Your task to perform on an android device: check the backup settings in the google photos Image 0: 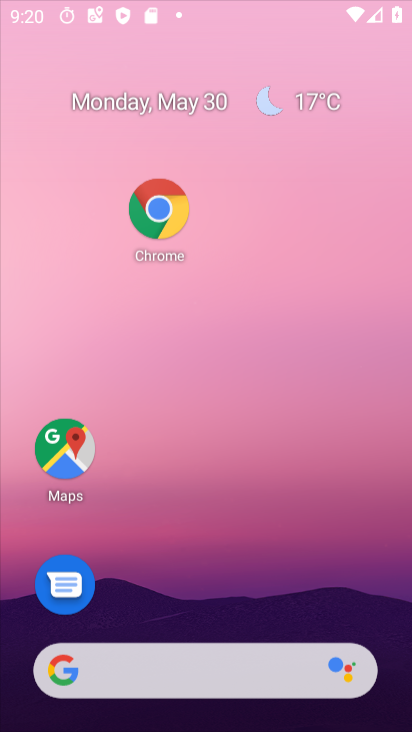
Step 0: click (259, 60)
Your task to perform on an android device: check the backup settings in the google photos Image 1: 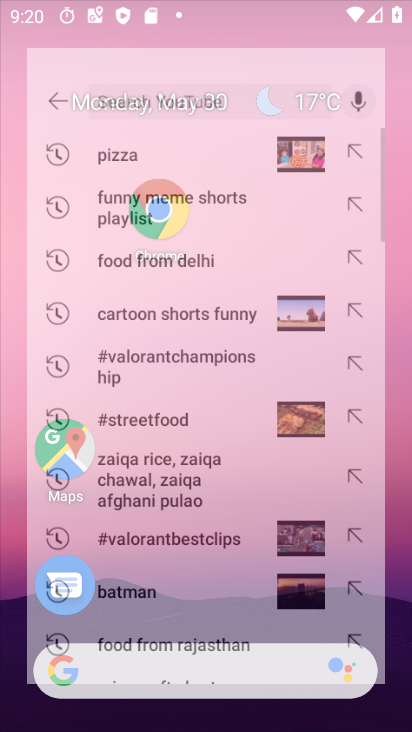
Step 1: drag from (230, 592) to (325, 98)
Your task to perform on an android device: check the backup settings in the google photos Image 2: 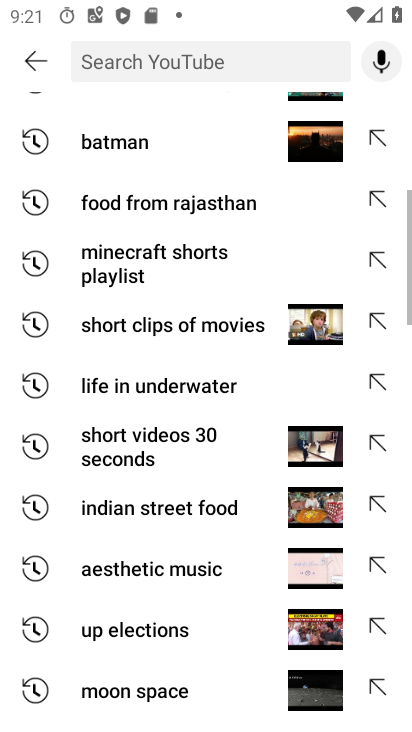
Step 2: press home button
Your task to perform on an android device: check the backup settings in the google photos Image 3: 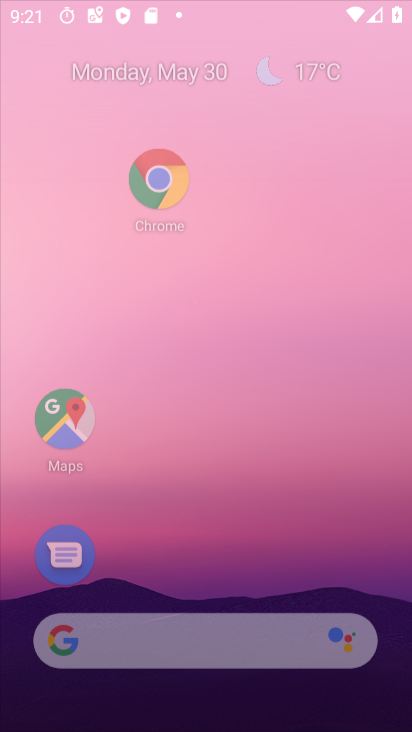
Step 3: drag from (263, 617) to (329, 159)
Your task to perform on an android device: check the backup settings in the google photos Image 4: 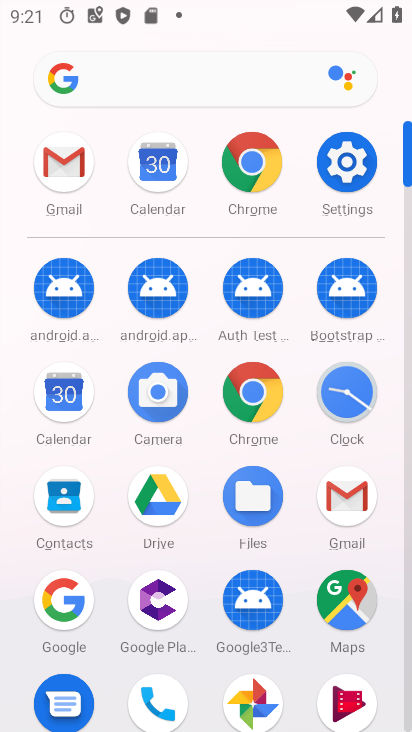
Step 4: click (352, 171)
Your task to perform on an android device: check the backup settings in the google photos Image 5: 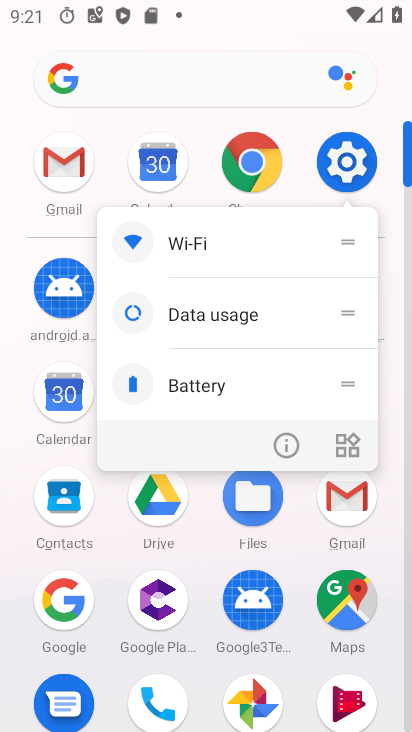
Step 5: click (244, 681)
Your task to perform on an android device: check the backup settings in the google photos Image 6: 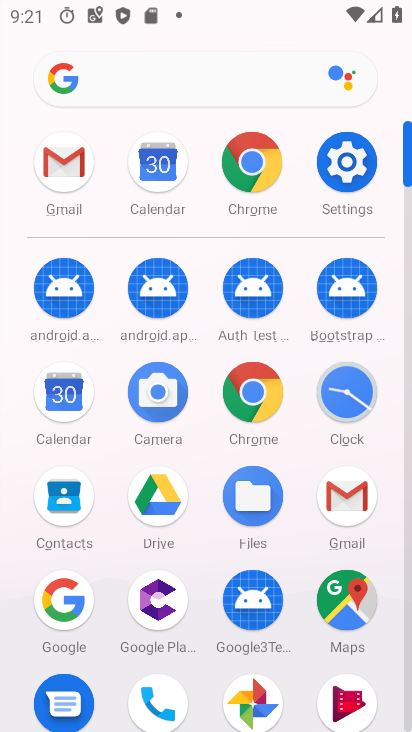
Step 6: click (249, 678)
Your task to perform on an android device: check the backup settings in the google photos Image 7: 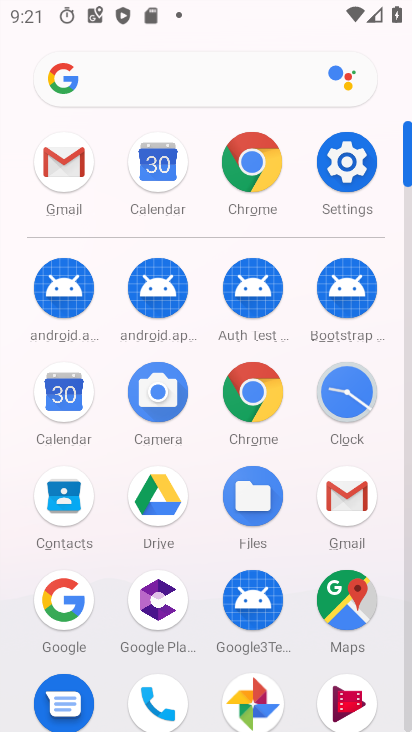
Step 7: click (250, 678)
Your task to perform on an android device: check the backup settings in the google photos Image 8: 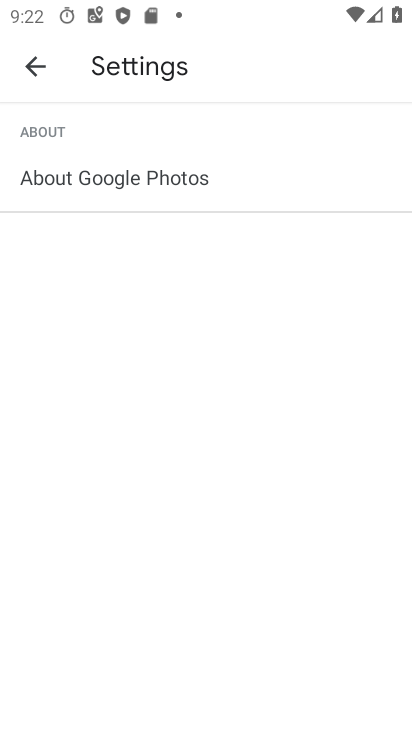
Step 8: click (37, 69)
Your task to perform on an android device: check the backup settings in the google photos Image 9: 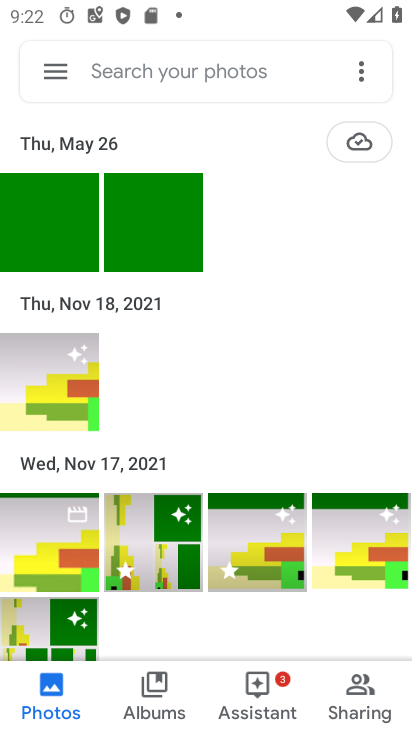
Step 9: click (293, 579)
Your task to perform on an android device: check the backup settings in the google photos Image 10: 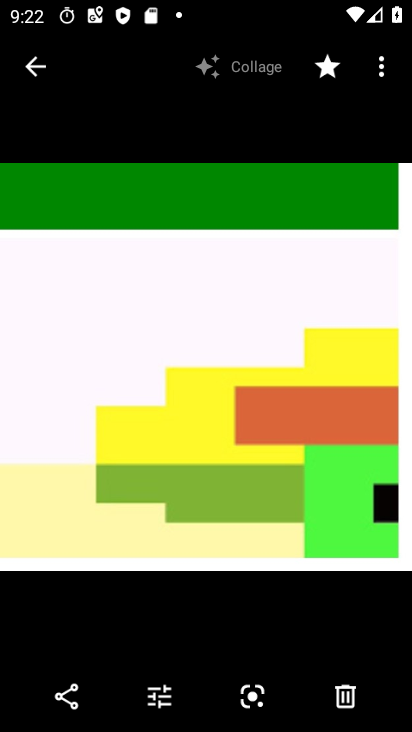
Step 10: click (39, 66)
Your task to perform on an android device: check the backup settings in the google photos Image 11: 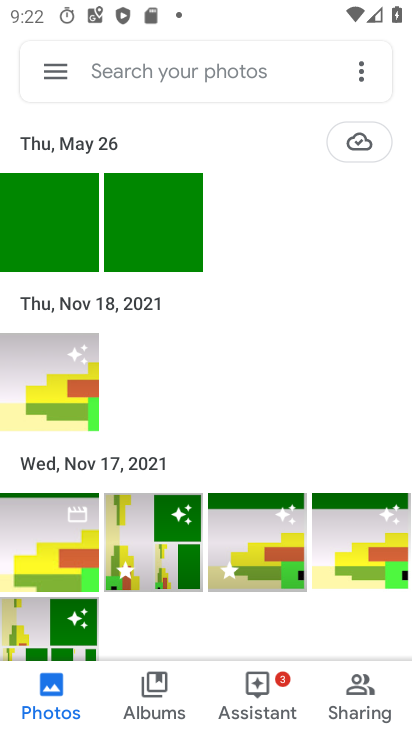
Step 11: click (39, 66)
Your task to perform on an android device: check the backup settings in the google photos Image 12: 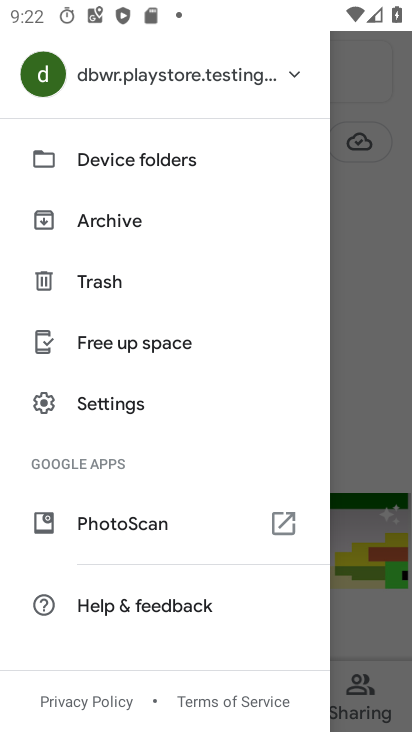
Step 12: click (147, 410)
Your task to perform on an android device: check the backup settings in the google photos Image 13: 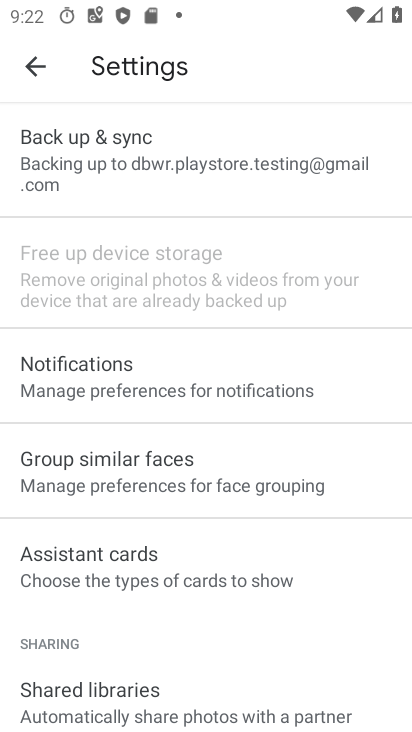
Step 13: click (107, 128)
Your task to perform on an android device: check the backup settings in the google photos Image 14: 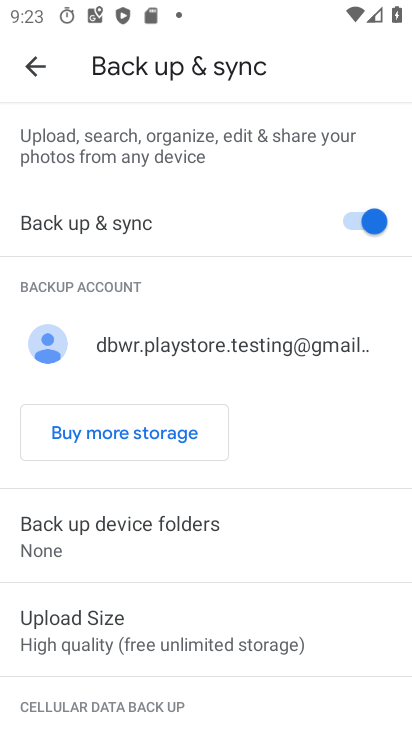
Step 14: task complete